Your task to perform on an android device: choose inbox layout in the gmail app Image 0: 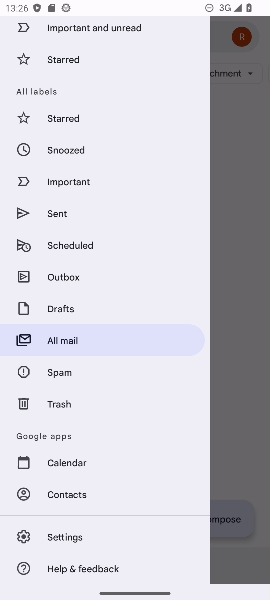
Step 0: press home button
Your task to perform on an android device: choose inbox layout in the gmail app Image 1: 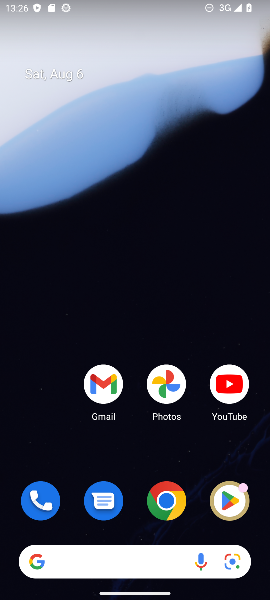
Step 1: click (96, 387)
Your task to perform on an android device: choose inbox layout in the gmail app Image 2: 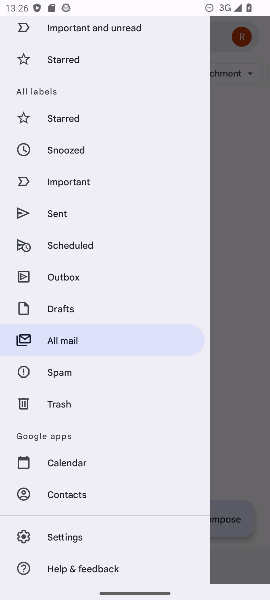
Step 2: click (58, 535)
Your task to perform on an android device: choose inbox layout in the gmail app Image 3: 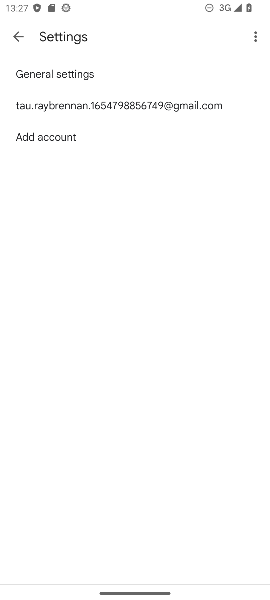
Step 3: click (102, 110)
Your task to perform on an android device: choose inbox layout in the gmail app Image 4: 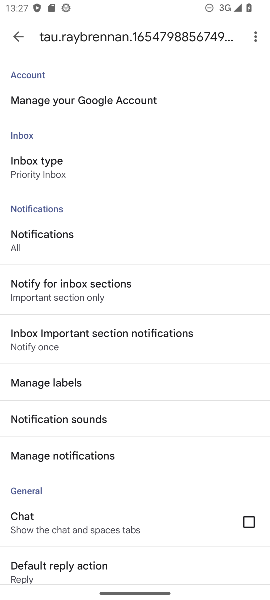
Step 4: click (49, 162)
Your task to perform on an android device: choose inbox layout in the gmail app Image 5: 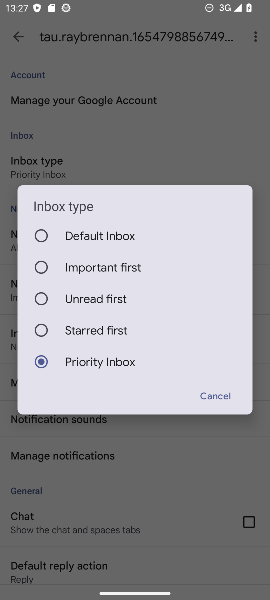
Step 5: click (41, 233)
Your task to perform on an android device: choose inbox layout in the gmail app Image 6: 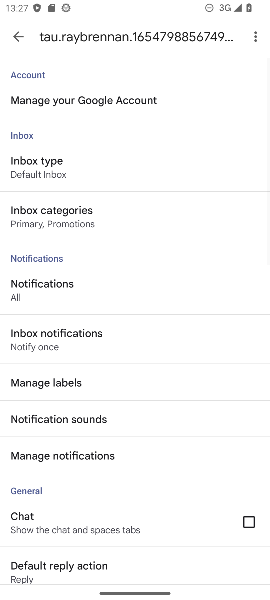
Step 6: task complete